Your task to perform on an android device: Is it going to rain tomorrow? Image 0: 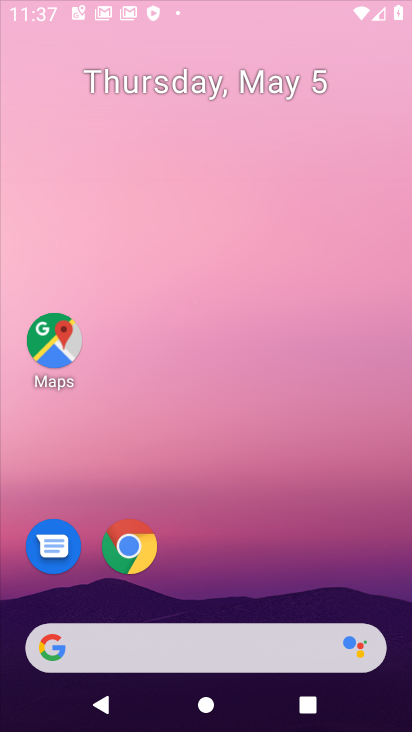
Step 0: click (124, 537)
Your task to perform on an android device: Is it going to rain tomorrow? Image 1: 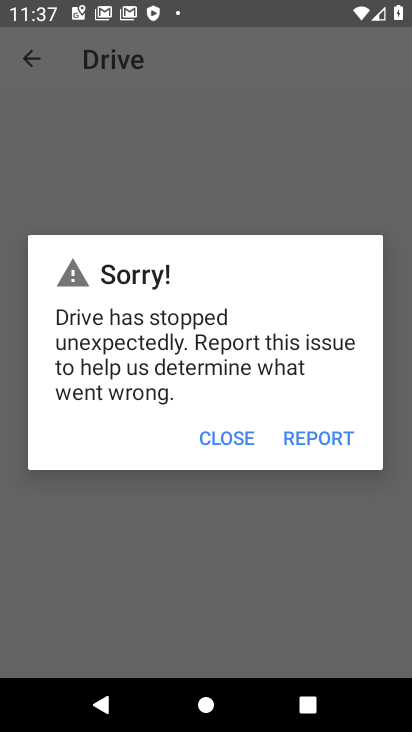
Step 1: press home button
Your task to perform on an android device: Is it going to rain tomorrow? Image 2: 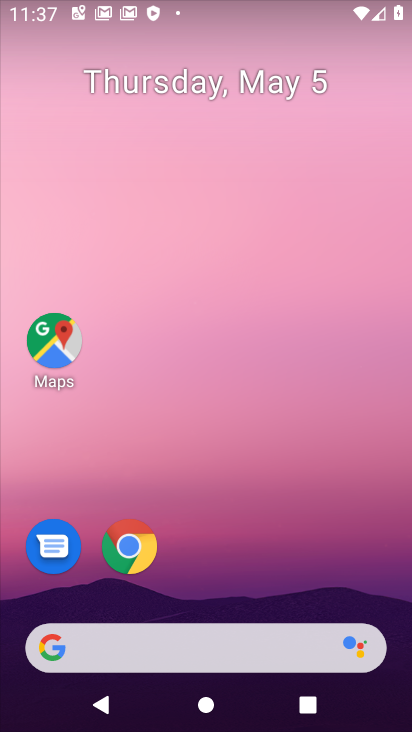
Step 2: click (243, 642)
Your task to perform on an android device: Is it going to rain tomorrow? Image 3: 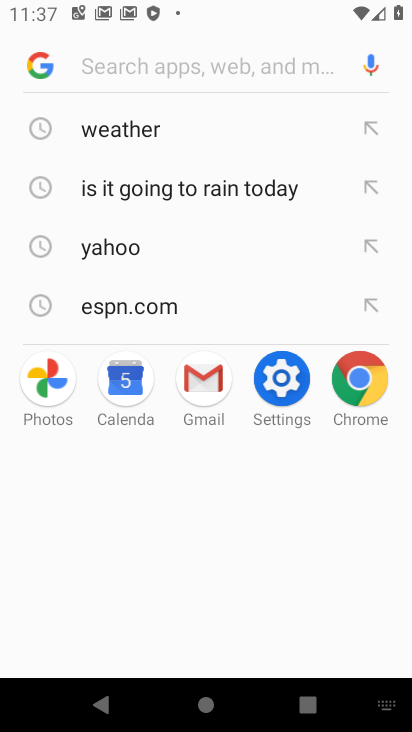
Step 3: click (164, 139)
Your task to perform on an android device: Is it going to rain tomorrow? Image 4: 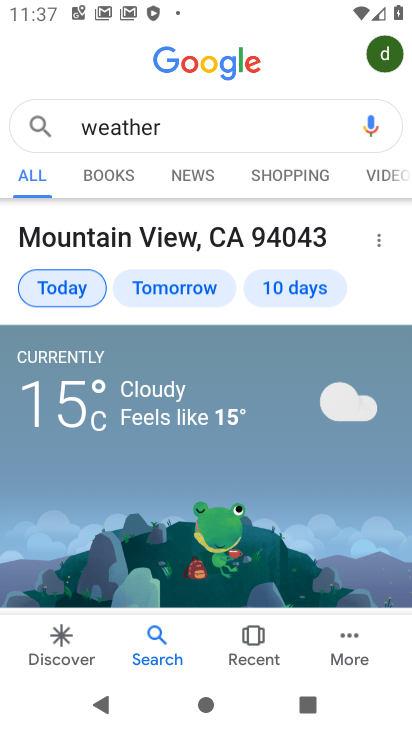
Step 4: click (190, 287)
Your task to perform on an android device: Is it going to rain tomorrow? Image 5: 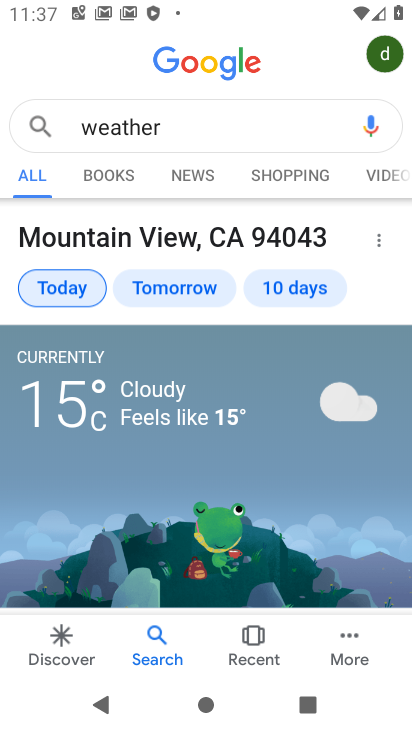
Step 5: click (189, 287)
Your task to perform on an android device: Is it going to rain tomorrow? Image 6: 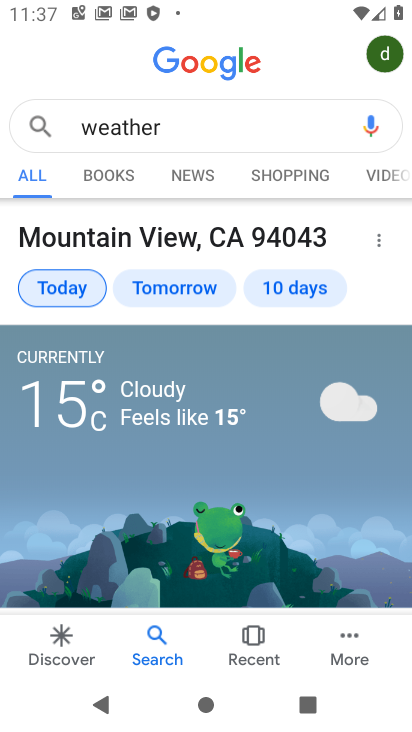
Step 6: click (277, 294)
Your task to perform on an android device: Is it going to rain tomorrow? Image 7: 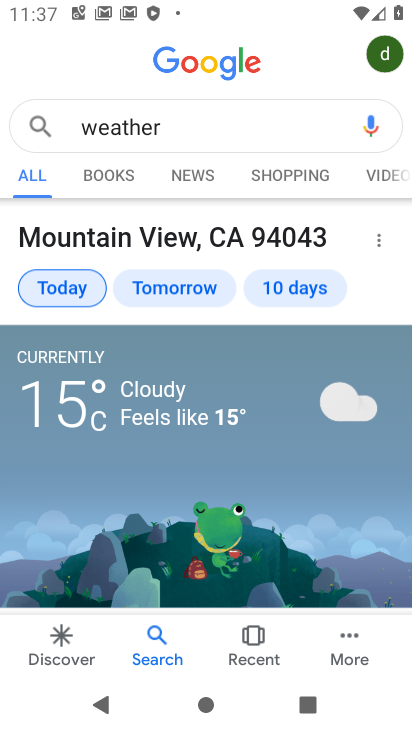
Step 7: click (276, 292)
Your task to perform on an android device: Is it going to rain tomorrow? Image 8: 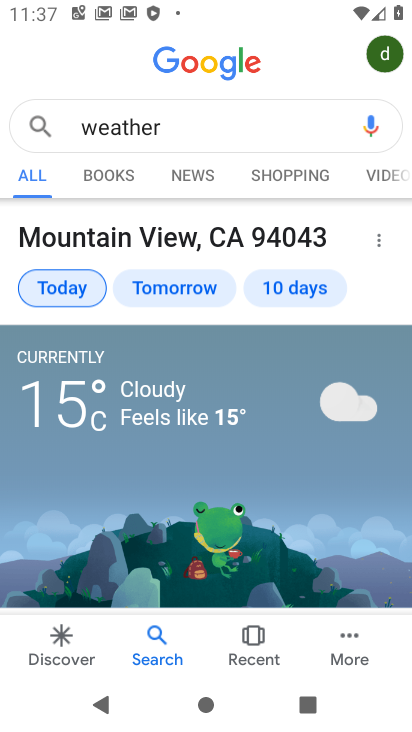
Step 8: drag from (235, 516) to (220, 265)
Your task to perform on an android device: Is it going to rain tomorrow? Image 9: 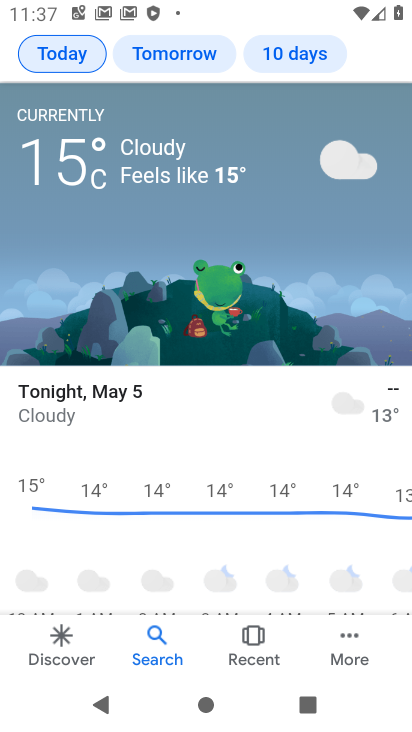
Step 9: drag from (241, 457) to (259, 218)
Your task to perform on an android device: Is it going to rain tomorrow? Image 10: 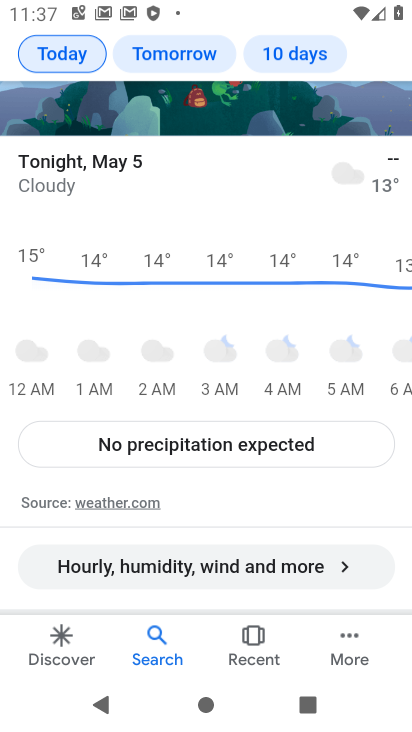
Step 10: click (285, 573)
Your task to perform on an android device: Is it going to rain tomorrow? Image 11: 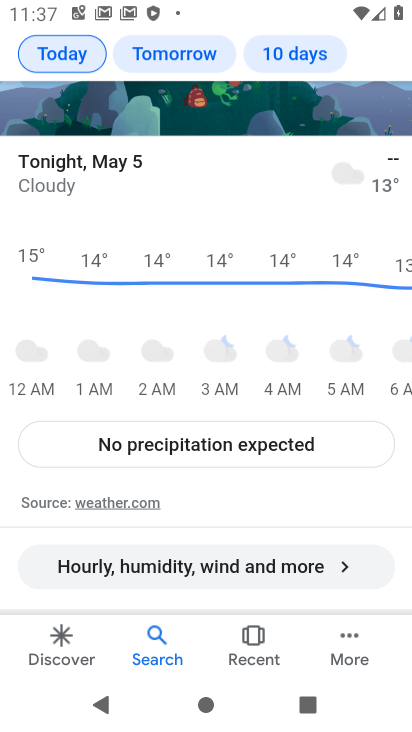
Step 11: click (301, 562)
Your task to perform on an android device: Is it going to rain tomorrow? Image 12: 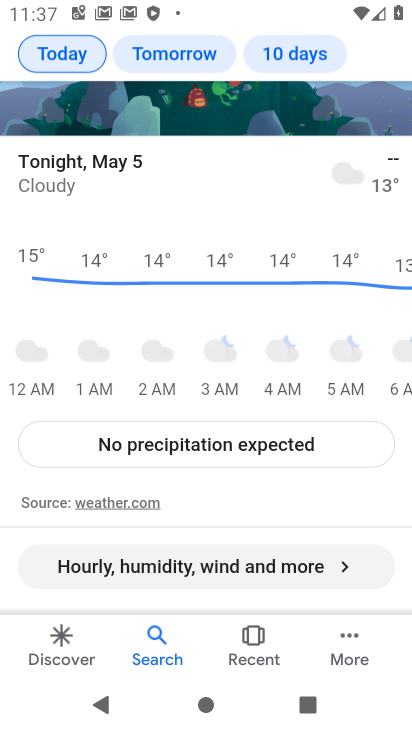
Step 12: click (301, 562)
Your task to perform on an android device: Is it going to rain tomorrow? Image 13: 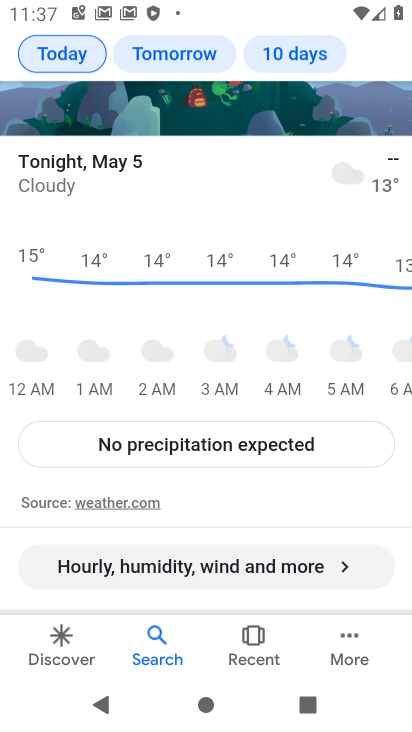
Step 13: click (301, 562)
Your task to perform on an android device: Is it going to rain tomorrow? Image 14: 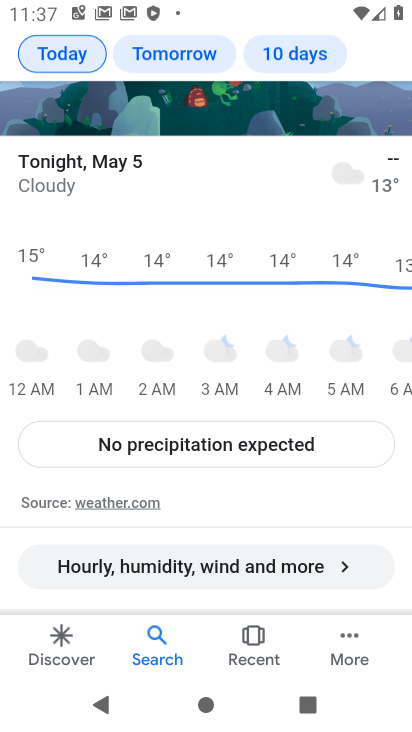
Step 14: drag from (277, 561) to (245, 363)
Your task to perform on an android device: Is it going to rain tomorrow? Image 15: 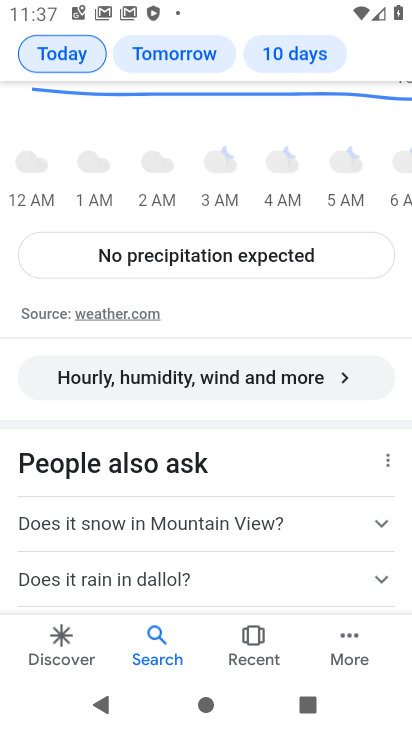
Step 15: drag from (271, 591) to (242, 157)
Your task to perform on an android device: Is it going to rain tomorrow? Image 16: 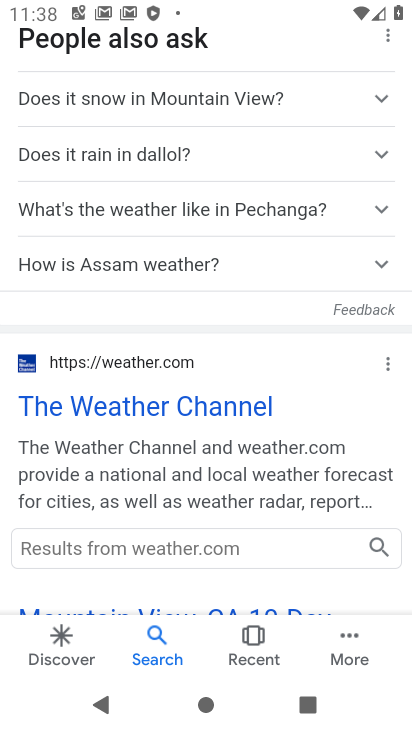
Step 16: drag from (226, 150) to (233, 548)
Your task to perform on an android device: Is it going to rain tomorrow? Image 17: 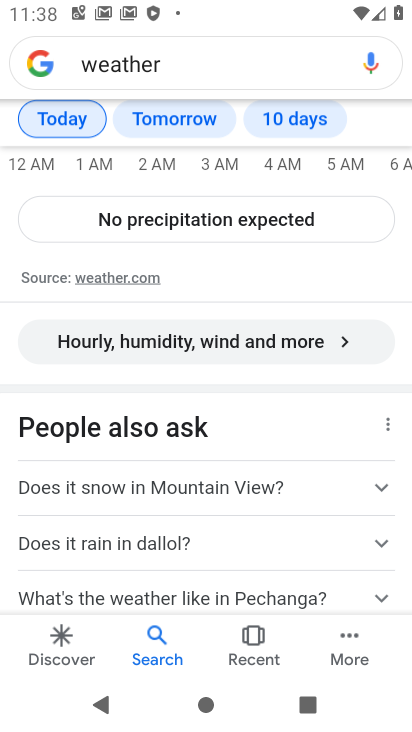
Step 17: drag from (198, 320) to (200, 551)
Your task to perform on an android device: Is it going to rain tomorrow? Image 18: 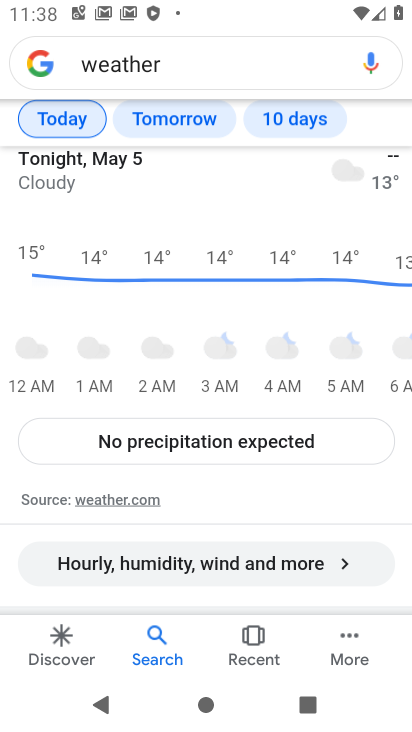
Step 18: click (161, 116)
Your task to perform on an android device: Is it going to rain tomorrow? Image 19: 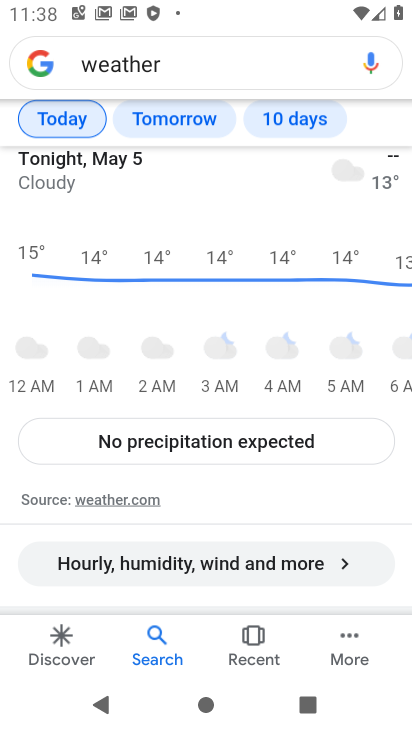
Step 19: click (161, 121)
Your task to perform on an android device: Is it going to rain tomorrow? Image 20: 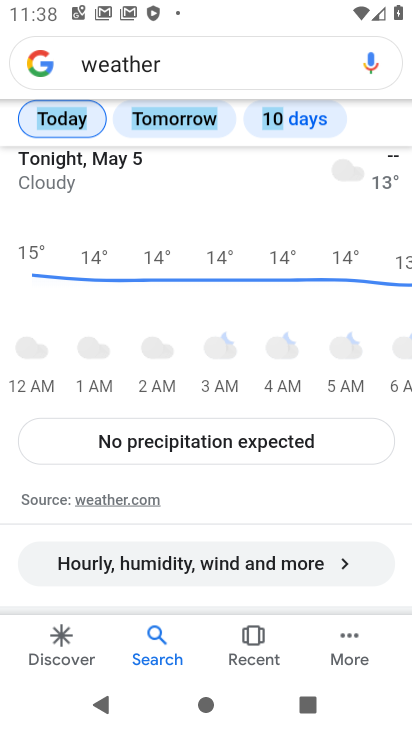
Step 20: click (161, 118)
Your task to perform on an android device: Is it going to rain tomorrow? Image 21: 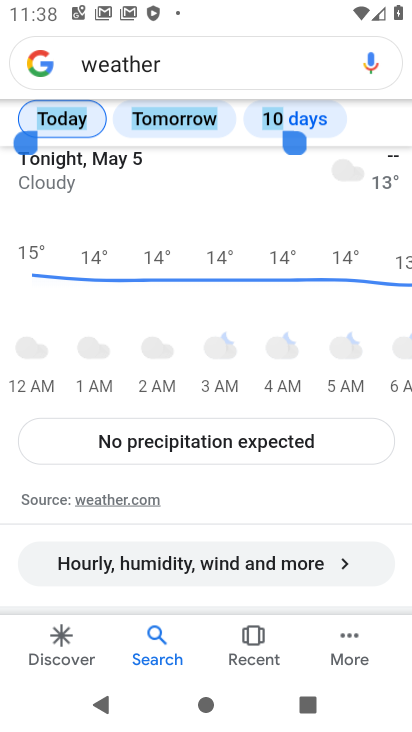
Step 21: click (162, 117)
Your task to perform on an android device: Is it going to rain tomorrow? Image 22: 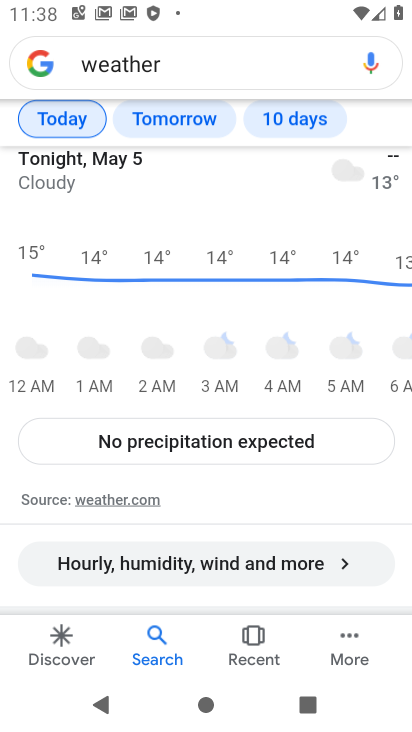
Step 22: click (208, 129)
Your task to perform on an android device: Is it going to rain tomorrow? Image 23: 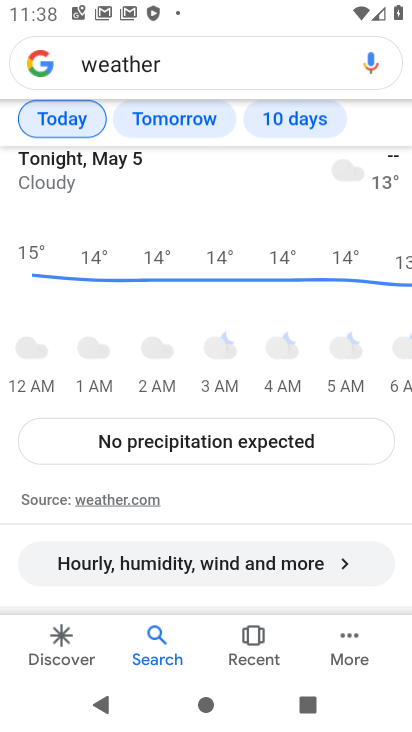
Step 23: click (226, 115)
Your task to perform on an android device: Is it going to rain tomorrow? Image 24: 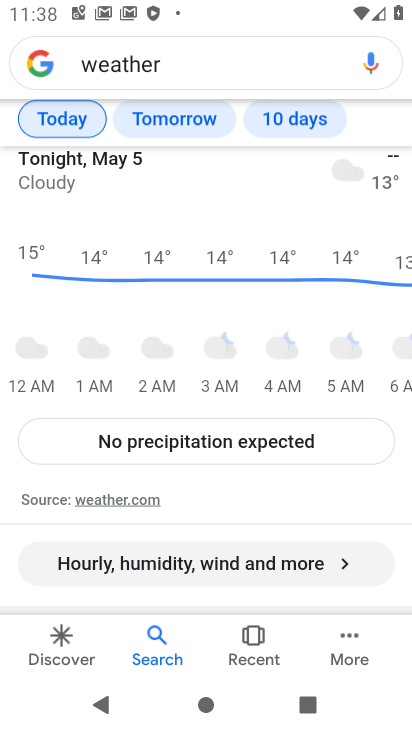
Step 24: click (331, 116)
Your task to perform on an android device: Is it going to rain tomorrow? Image 25: 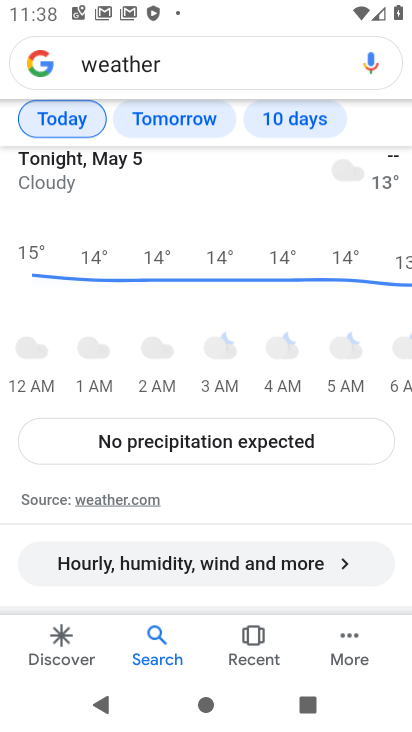
Step 25: click (331, 116)
Your task to perform on an android device: Is it going to rain tomorrow? Image 26: 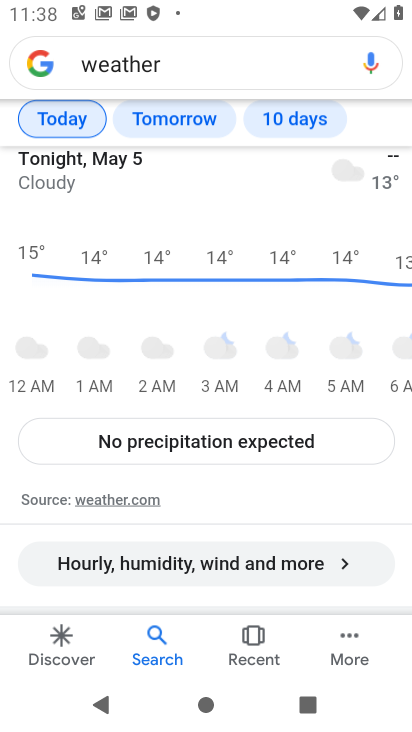
Step 26: click (331, 116)
Your task to perform on an android device: Is it going to rain tomorrow? Image 27: 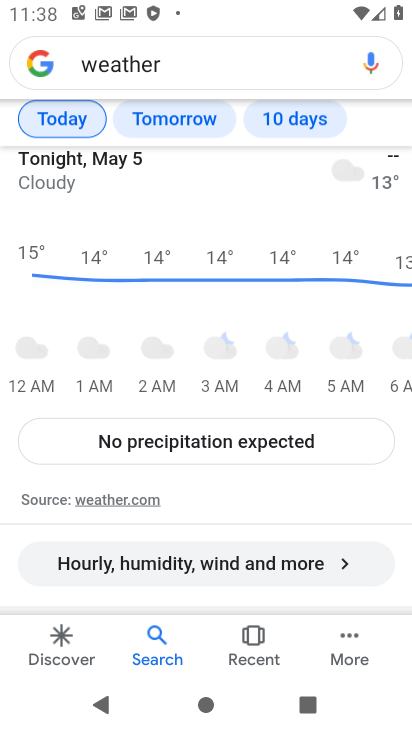
Step 27: task complete